Your task to perform on an android device: When is my next meeting? Image 0: 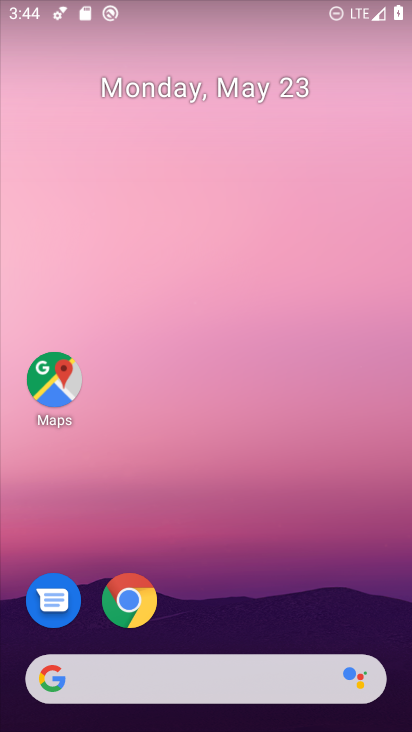
Step 0: drag from (277, 641) to (298, 7)
Your task to perform on an android device: When is my next meeting? Image 1: 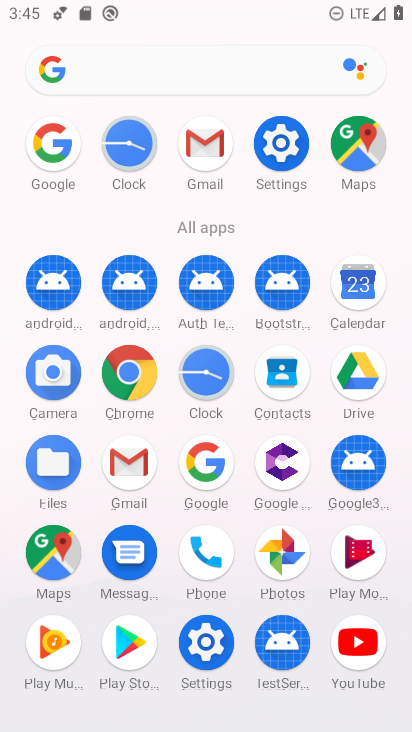
Step 1: click (348, 290)
Your task to perform on an android device: When is my next meeting? Image 2: 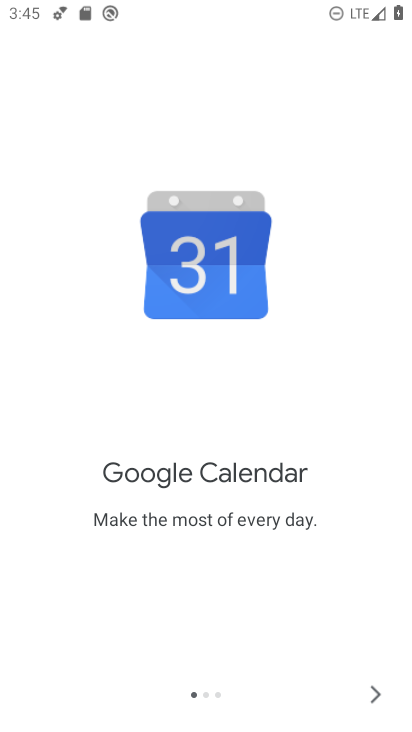
Step 2: click (381, 700)
Your task to perform on an android device: When is my next meeting? Image 3: 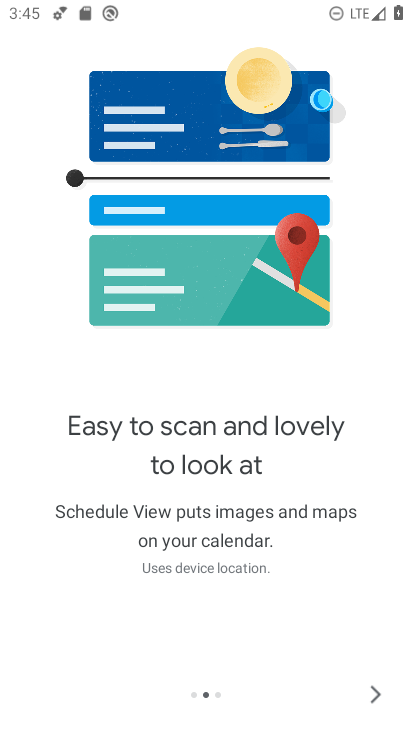
Step 3: click (381, 700)
Your task to perform on an android device: When is my next meeting? Image 4: 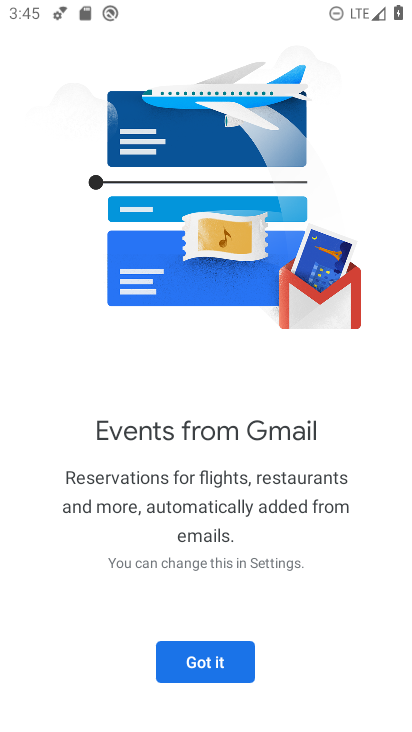
Step 4: click (194, 663)
Your task to perform on an android device: When is my next meeting? Image 5: 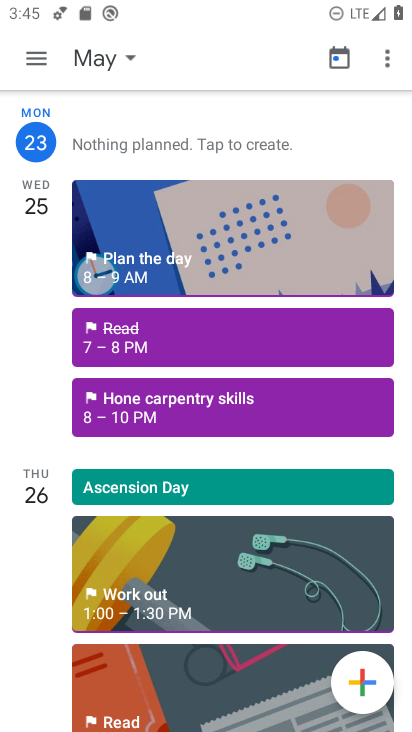
Step 5: click (174, 324)
Your task to perform on an android device: When is my next meeting? Image 6: 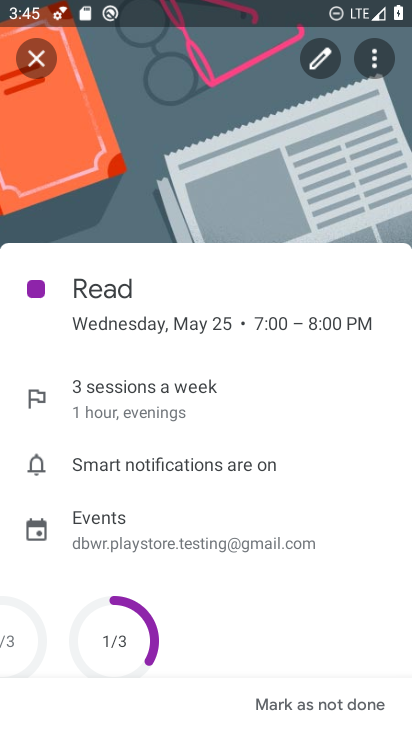
Step 6: task complete